Your task to perform on an android device: move a message to another label in the gmail app Image 0: 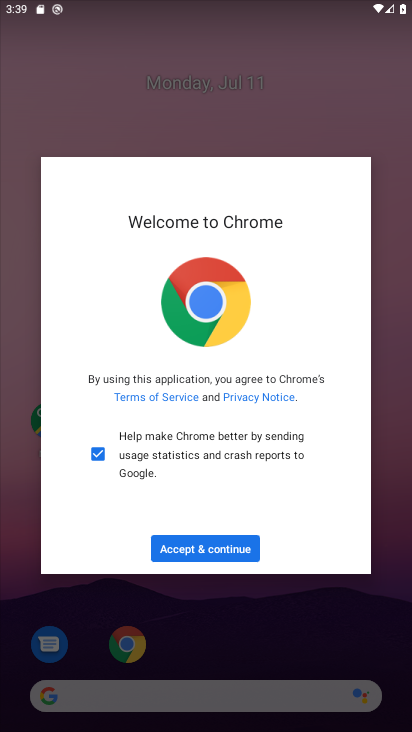
Step 0: press home button
Your task to perform on an android device: move a message to another label in the gmail app Image 1: 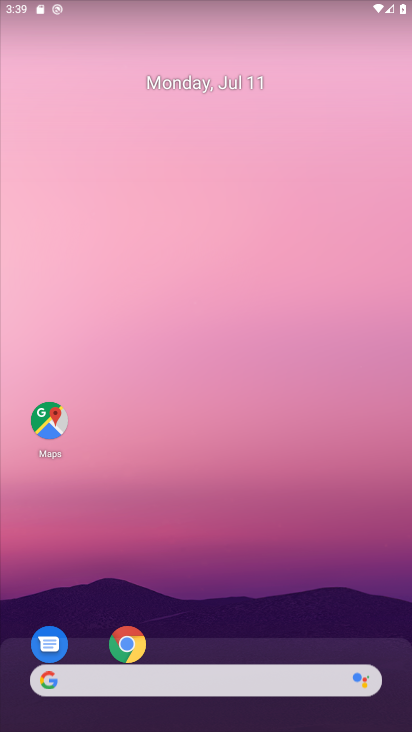
Step 1: drag from (194, 641) to (206, 198)
Your task to perform on an android device: move a message to another label in the gmail app Image 2: 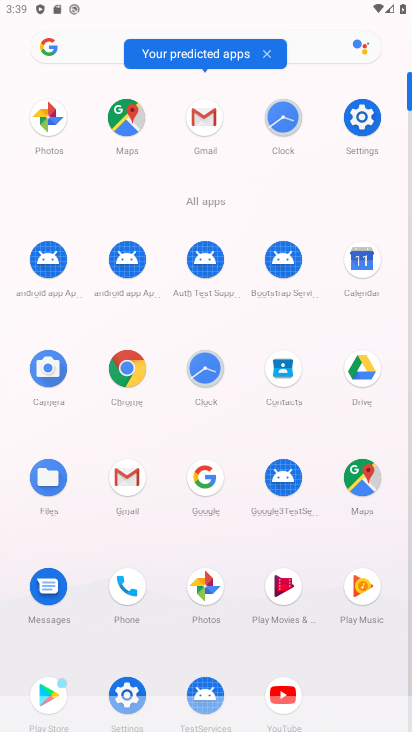
Step 2: click (205, 115)
Your task to perform on an android device: move a message to another label in the gmail app Image 3: 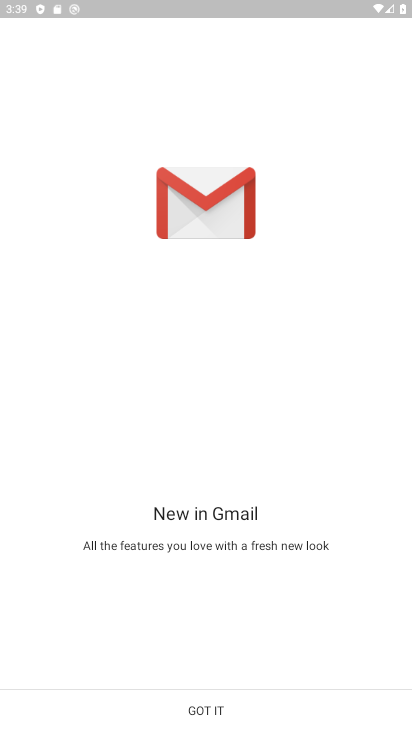
Step 3: click (212, 703)
Your task to perform on an android device: move a message to another label in the gmail app Image 4: 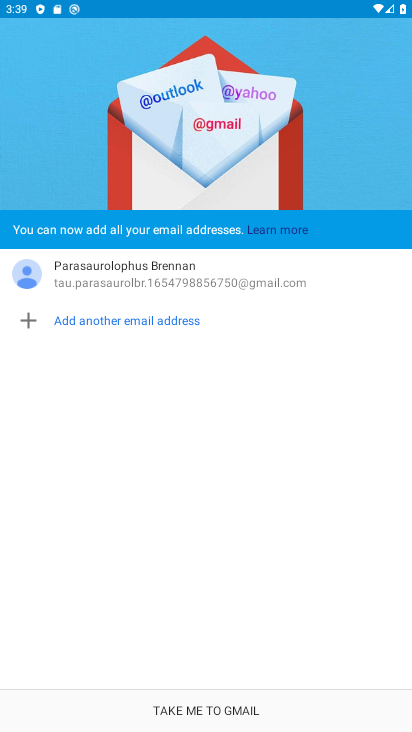
Step 4: click (207, 707)
Your task to perform on an android device: move a message to another label in the gmail app Image 5: 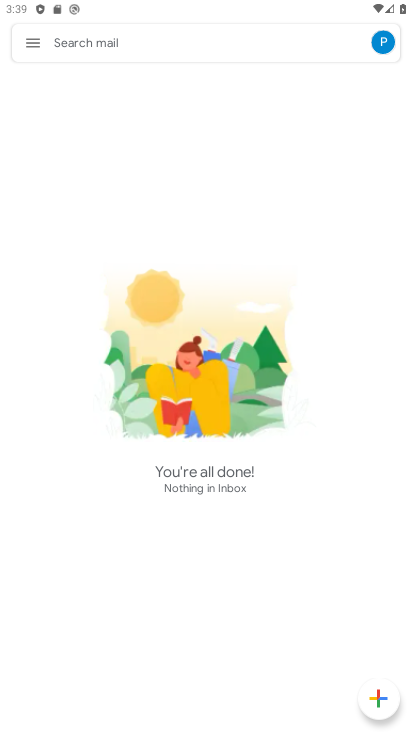
Step 5: click (26, 36)
Your task to perform on an android device: move a message to another label in the gmail app Image 6: 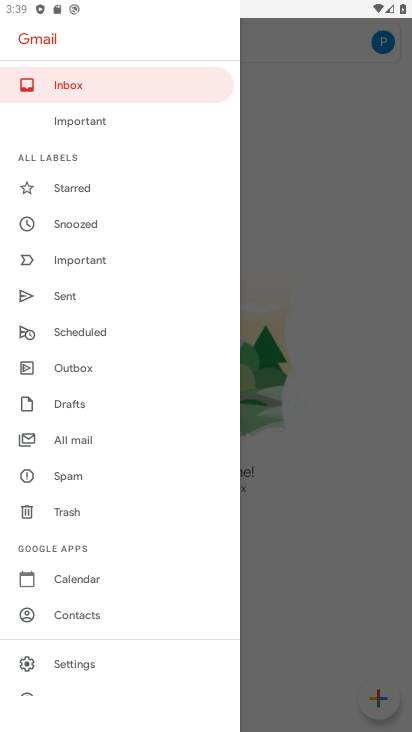
Step 6: click (79, 441)
Your task to perform on an android device: move a message to another label in the gmail app Image 7: 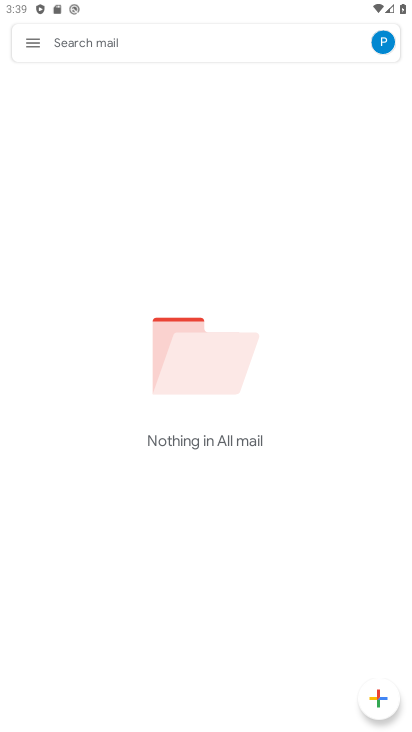
Step 7: task complete